Your task to perform on an android device: What's the weather today? Image 0: 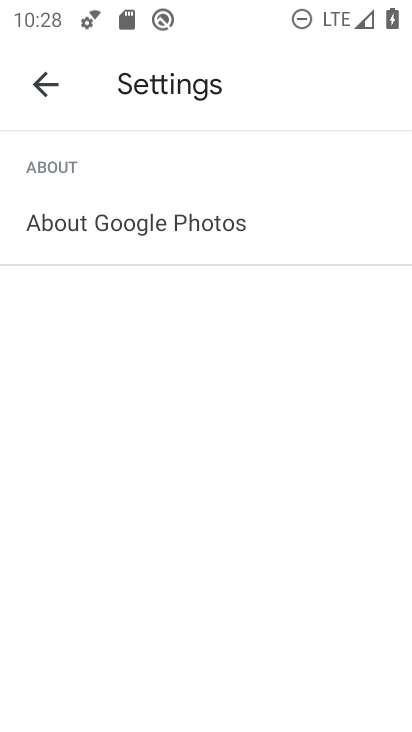
Step 0: press home button
Your task to perform on an android device: What's the weather today? Image 1: 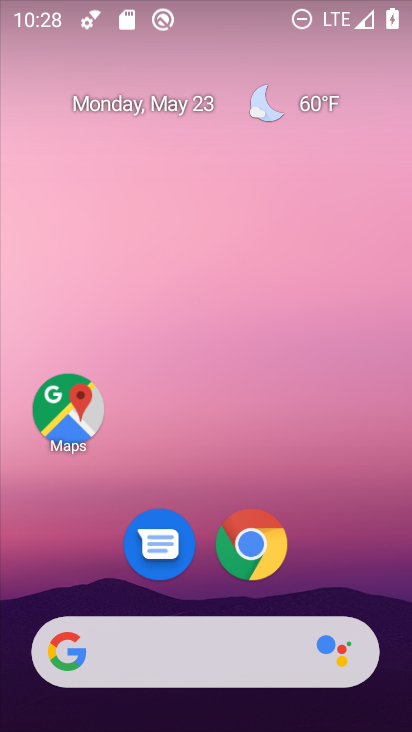
Step 1: click (248, 561)
Your task to perform on an android device: What's the weather today? Image 2: 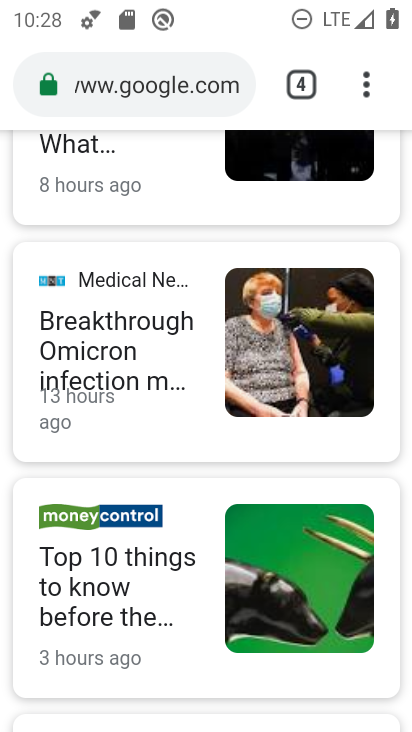
Step 2: click (304, 78)
Your task to perform on an android device: What's the weather today? Image 3: 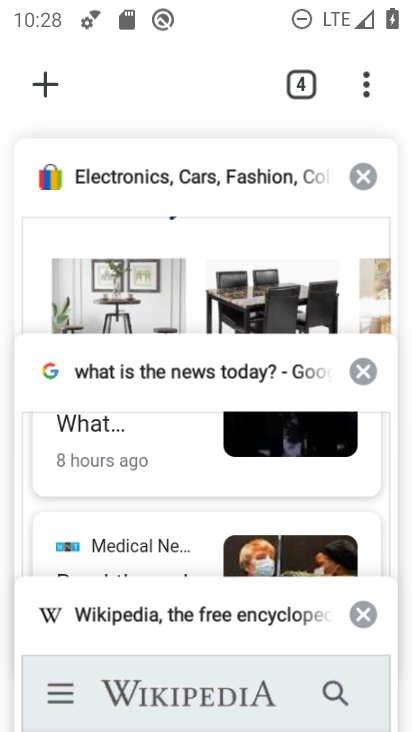
Step 3: drag from (149, 604) to (168, 303)
Your task to perform on an android device: What's the weather today? Image 4: 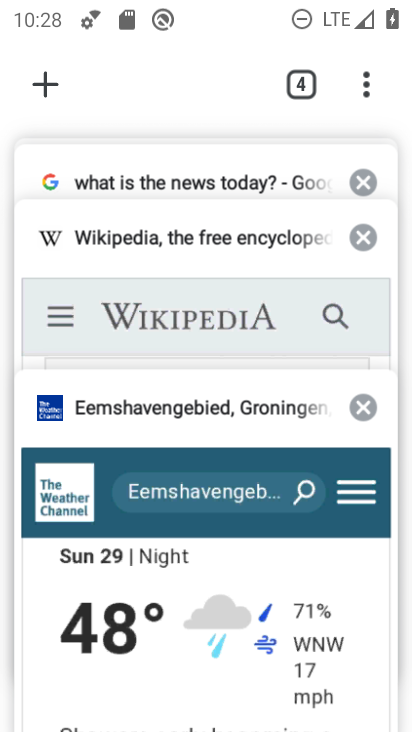
Step 4: click (159, 516)
Your task to perform on an android device: What's the weather today? Image 5: 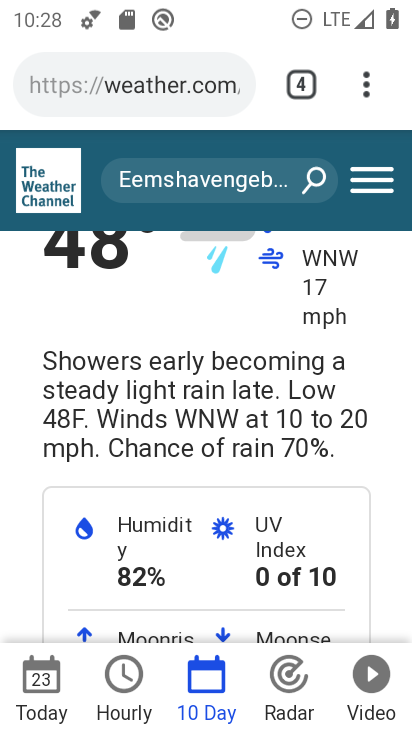
Step 5: drag from (284, 310) to (277, 632)
Your task to perform on an android device: What's the weather today? Image 6: 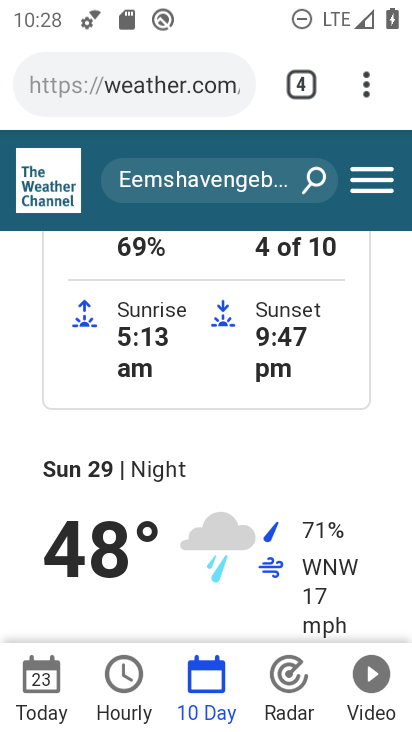
Step 6: drag from (276, 351) to (317, 647)
Your task to perform on an android device: What's the weather today? Image 7: 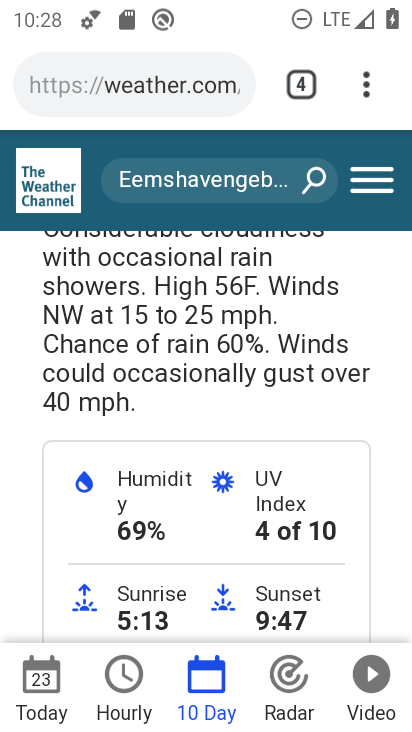
Step 7: drag from (318, 271) to (311, 711)
Your task to perform on an android device: What's the weather today? Image 8: 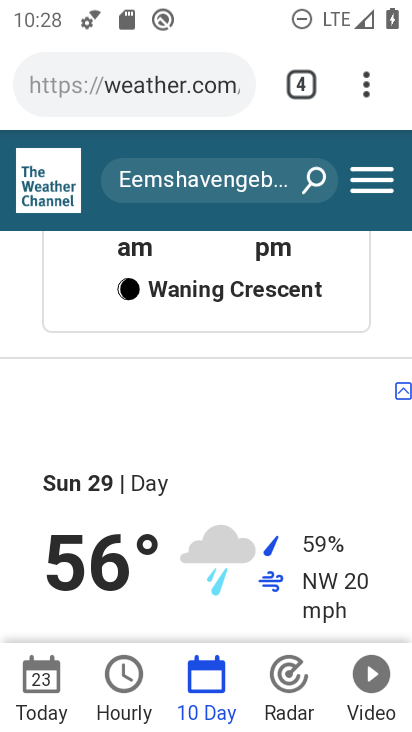
Step 8: click (403, 391)
Your task to perform on an android device: What's the weather today? Image 9: 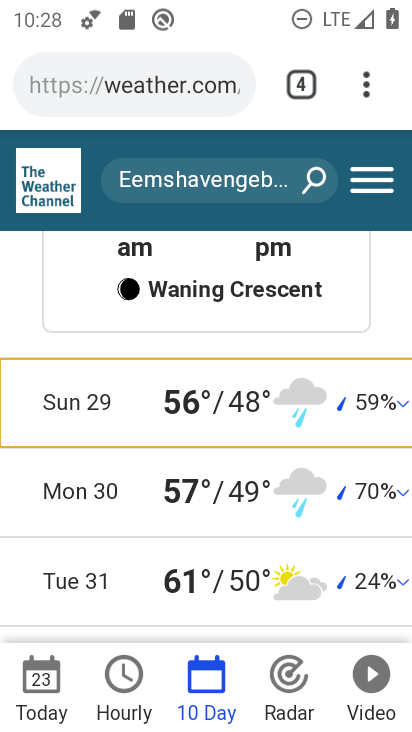
Step 9: drag from (373, 323) to (349, 608)
Your task to perform on an android device: What's the weather today? Image 10: 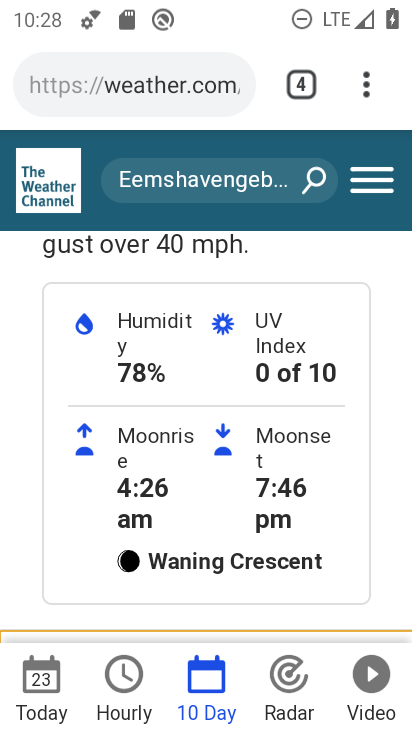
Step 10: drag from (341, 343) to (364, 582)
Your task to perform on an android device: What's the weather today? Image 11: 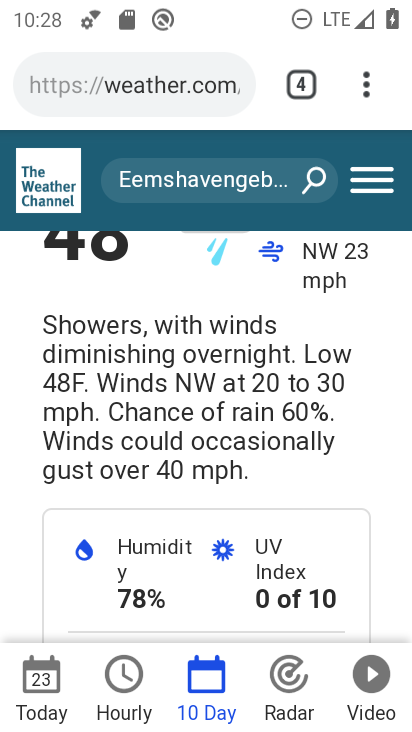
Step 11: drag from (383, 244) to (375, 548)
Your task to perform on an android device: What's the weather today? Image 12: 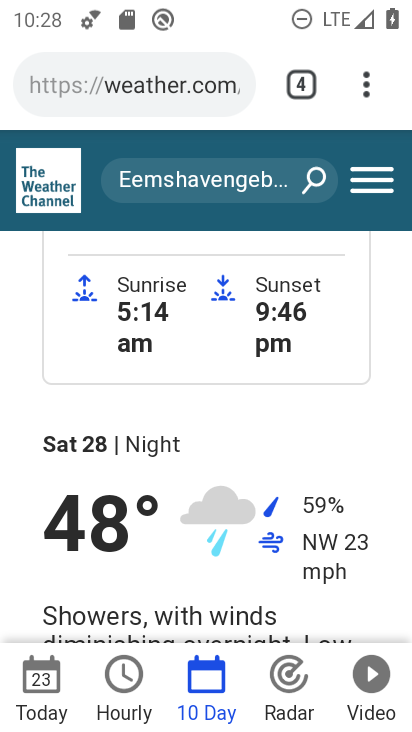
Step 12: drag from (373, 340) to (350, 671)
Your task to perform on an android device: What's the weather today? Image 13: 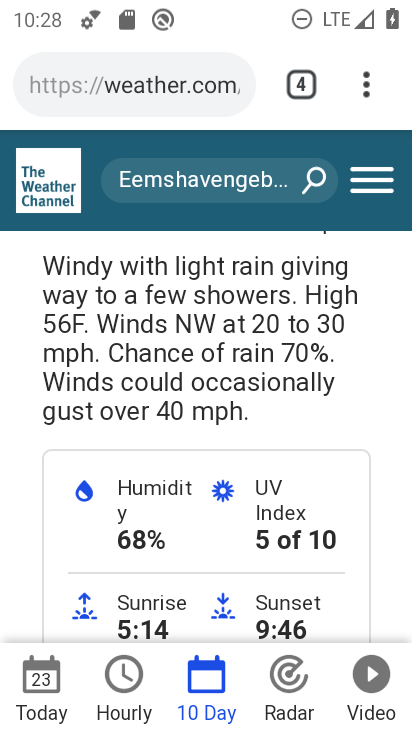
Step 13: drag from (299, 280) to (360, 673)
Your task to perform on an android device: What's the weather today? Image 14: 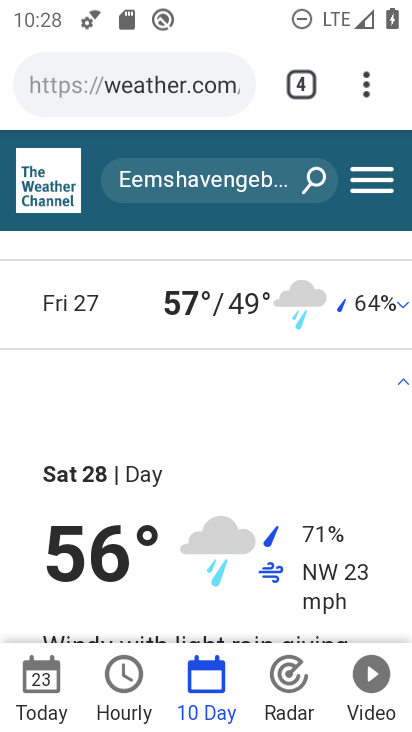
Step 14: click (400, 378)
Your task to perform on an android device: What's the weather today? Image 15: 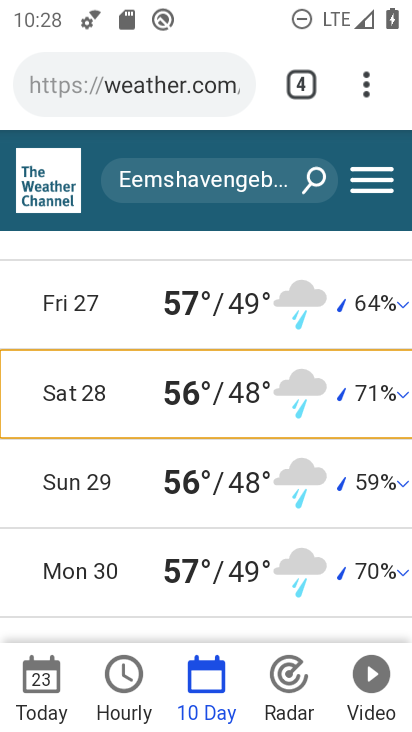
Step 15: drag from (313, 341) to (292, 589)
Your task to perform on an android device: What's the weather today? Image 16: 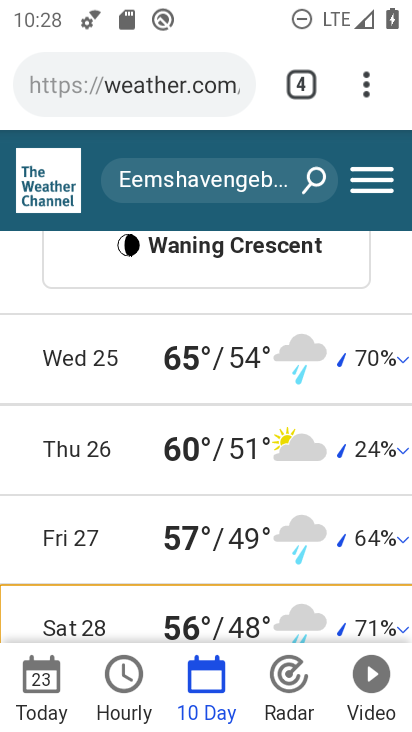
Step 16: drag from (278, 362) to (277, 613)
Your task to perform on an android device: What's the weather today? Image 17: 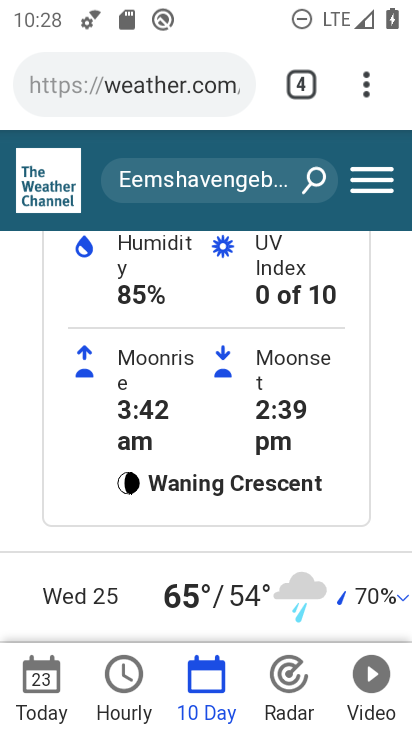
Step 17: drag from (281, 374) to (277, 628)
Your task to perform on an android device: What's the weather today? Image 18: 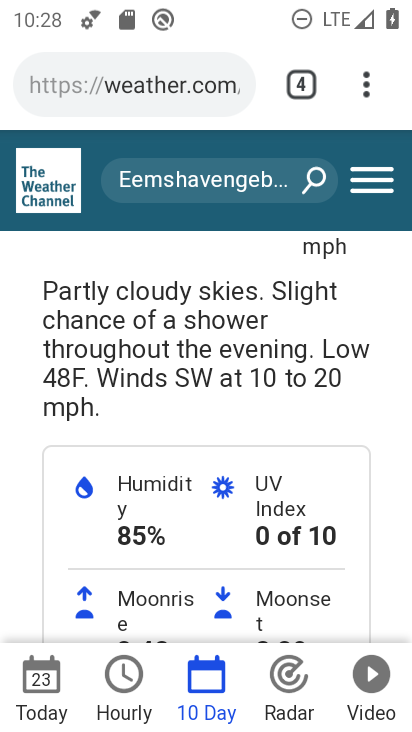
Step 18: drag from (263, 380) to (247, 686)
Your task to perform on an android device: What's the weather today? Image 19: 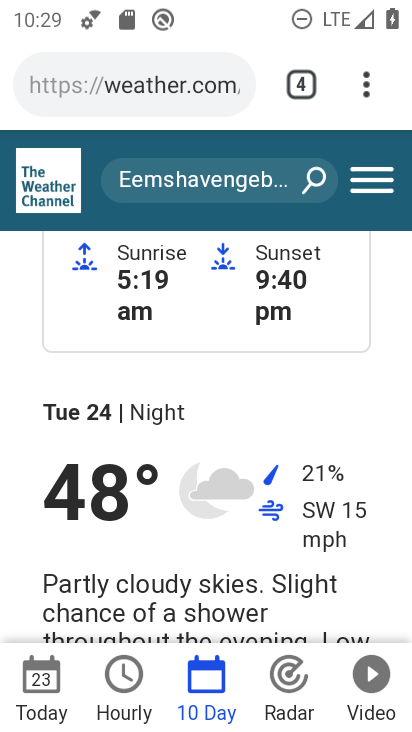
Step 19: drag from (330, 360) to (357, 679)
Your task to perform on an android device: What's the weather today? Image 20: 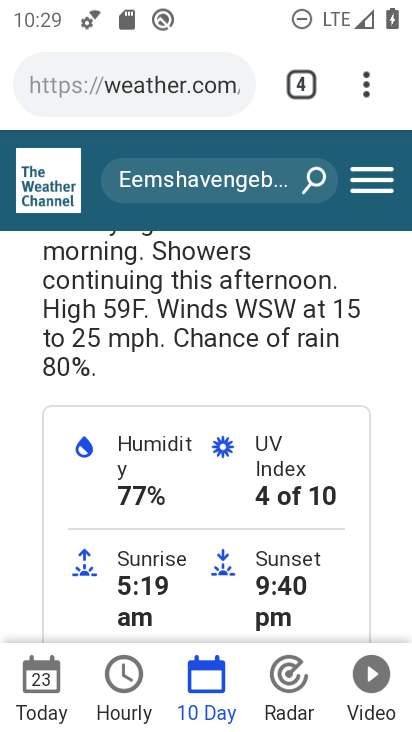
Step 20: drag from (313, 360) to (323, 562)
Your task to perform on an android device: What's the weather today? Image 21: 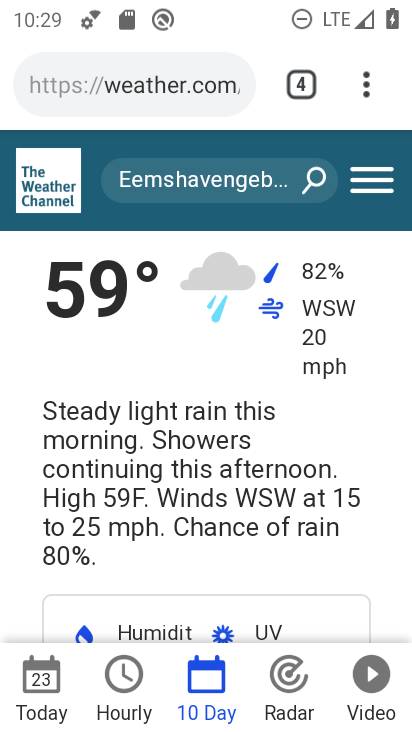
Step 21: drag from (340, 279) to (357, 567)
Your task to perform on an android device: What's the weather today? Image 22: 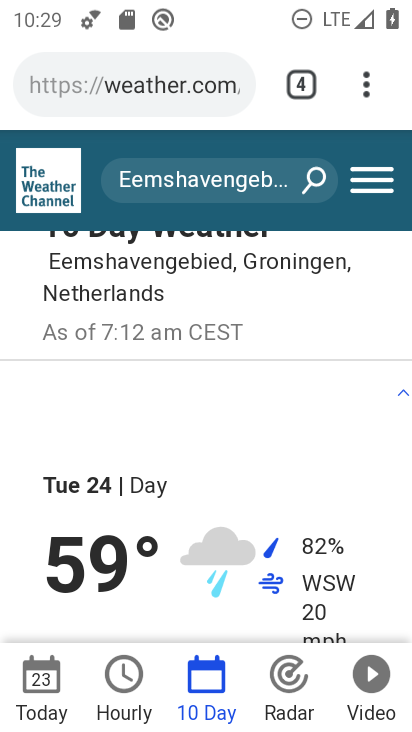
Step 22: click (406, 388)
Your task to perform on an android device: What's the weather today? Image 23: 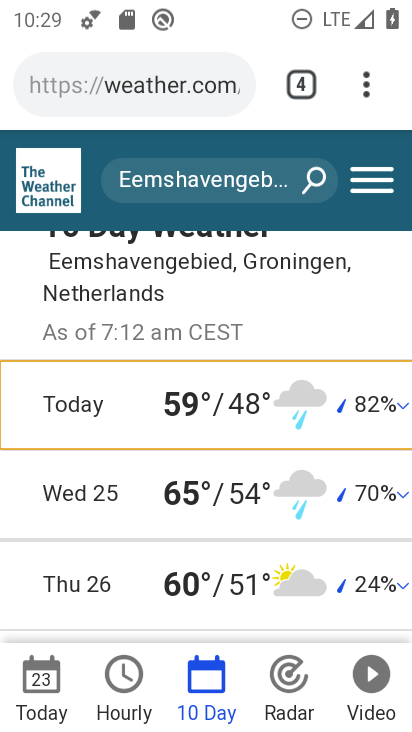
Step 23: task complete